Your task to perform on an android device: clear history in the chrome app Image 0: 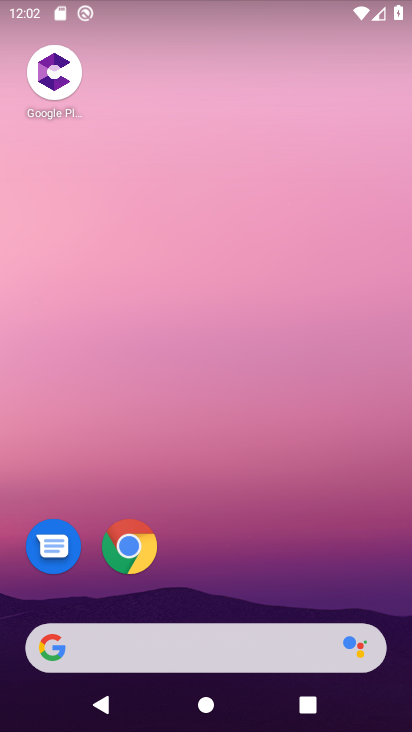
Step 0: drag from (259, 585) to (318, 196)
Your task to perform on an android device: clear history in the chrome app Image 1: 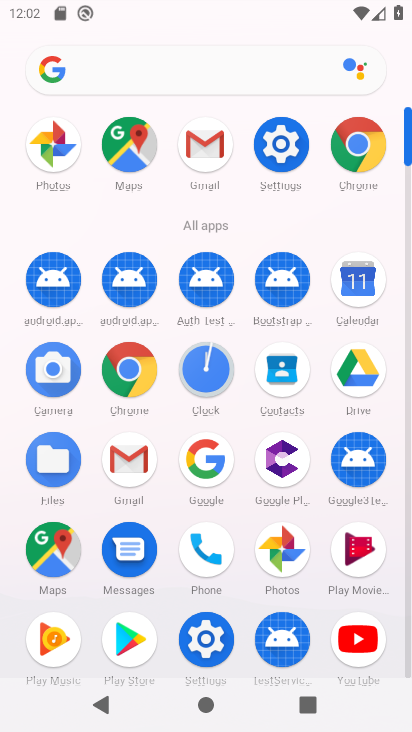
Step 1: click (354, 136)
Your task to perform on an android device: clear history in the chrome app Image 2: 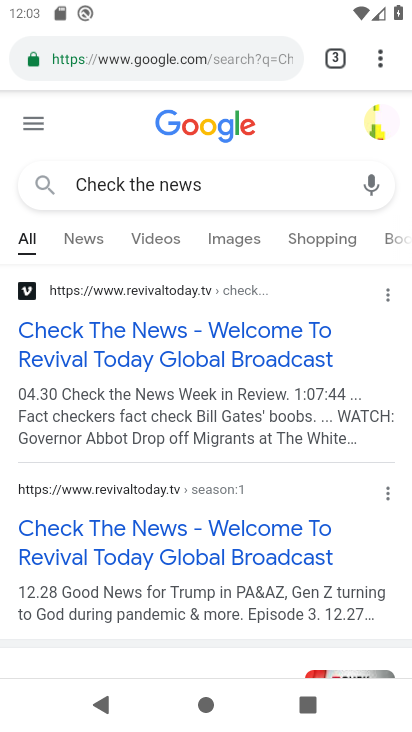
Step 2: click (370, 57)
Your task to perform on an android device: clear history in the chrome app Image 3: 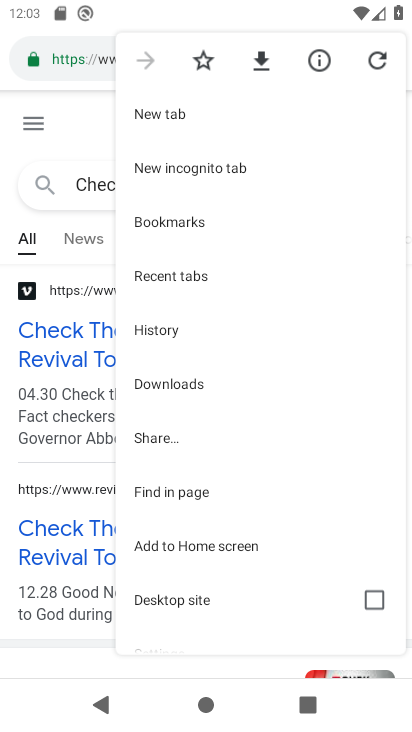
Step 3: click (184, 332)
Your task to perform on an android device: clear history in the chrome app Image 4: 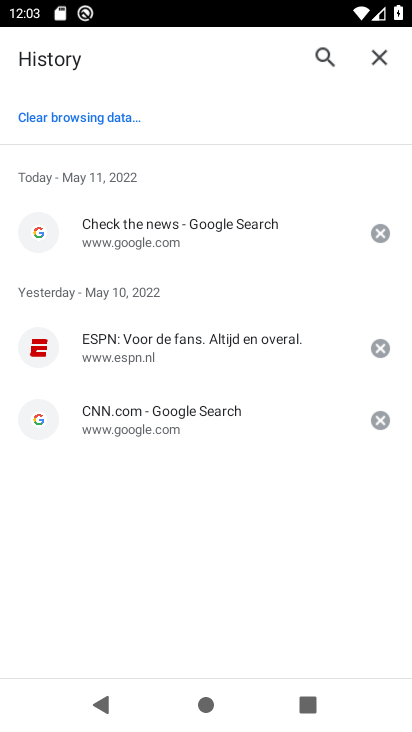
Step 4: click (70, 109)
Your task to perform on an android device: clear history in the chrome app Image 5: 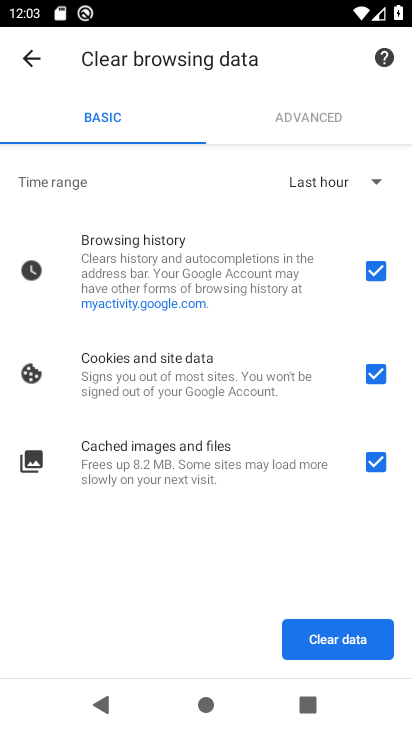
Step 5: click (353, 640)
Your task to perform on an android device: clear history in the chrome app Image 6: 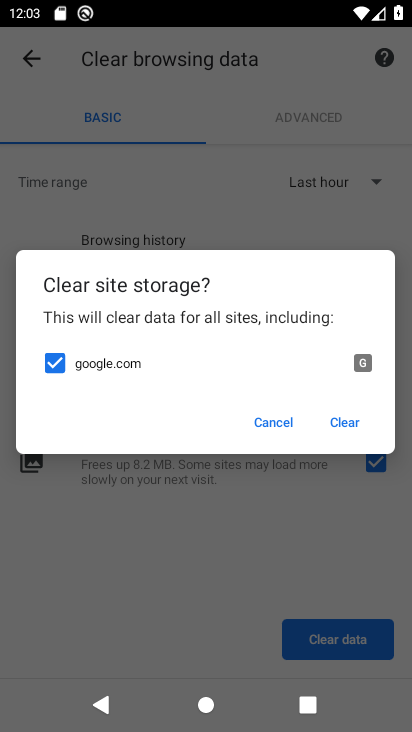
Step 6: click (343, 421)
Your task to perform on an android device: clear history in the chrome app Image 7: 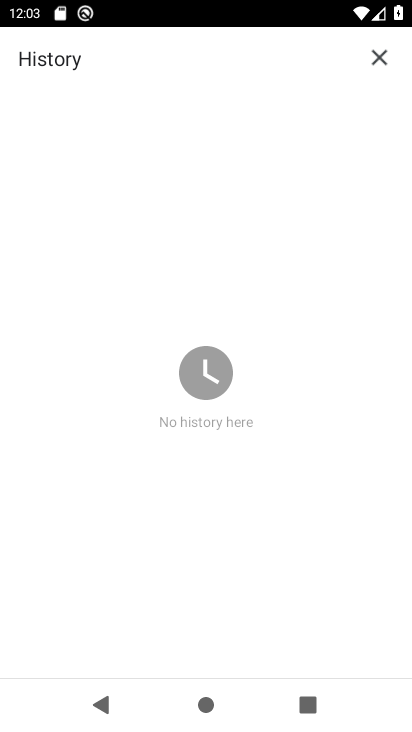
Step 7: task complete